Your task to perform on an android device: Open wifi settings Image 0: 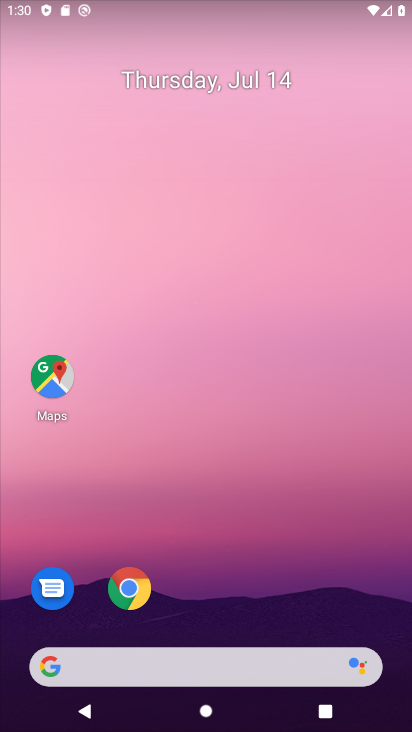
Step 0: drag from (278, 720) to (278, 216)
Your task to perform on an android device: Open wifi settings Image 1: 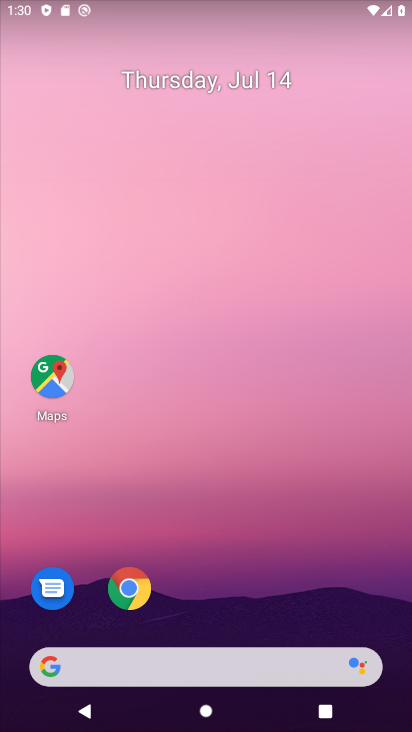
Step 1: drag from (265, 705) to (291, 138)
Your task to perform on an android device: Open wifi settings Image 2: 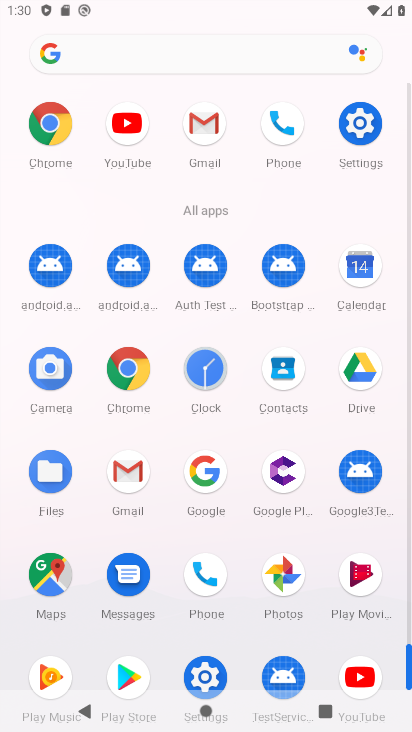
Step 2: click (369, 121)
Your task to perform on an android device: Open wifi settings Image 3: 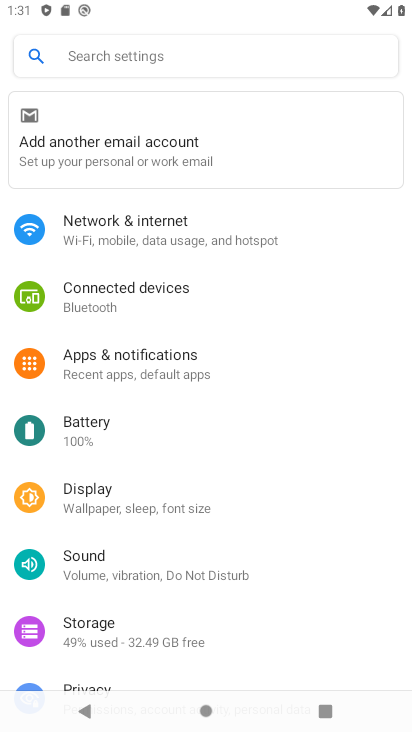
Step 3: click (210, 246)
Your task to perform on an android device: Open wifi settings Image 4: 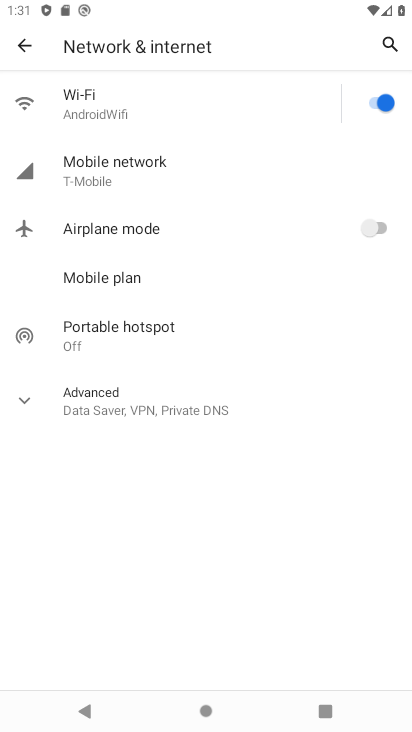
Step 4: click (190, 120)
Your task to perform on an android device: Open wifi settings Image 5: 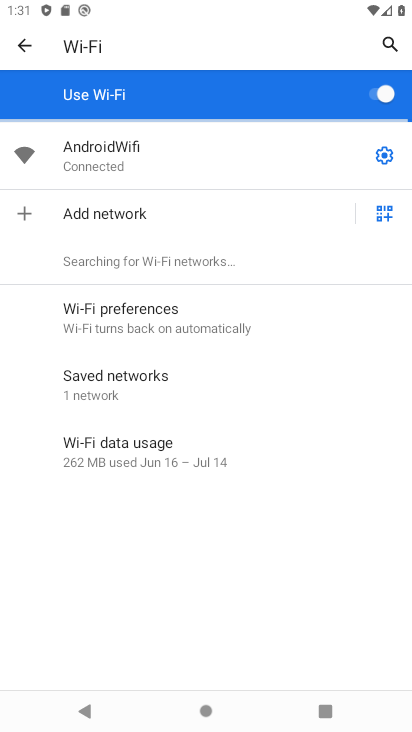
Step 5: click (384, 150)
Your task to perform on an android device: Open wifi settings Image 6: 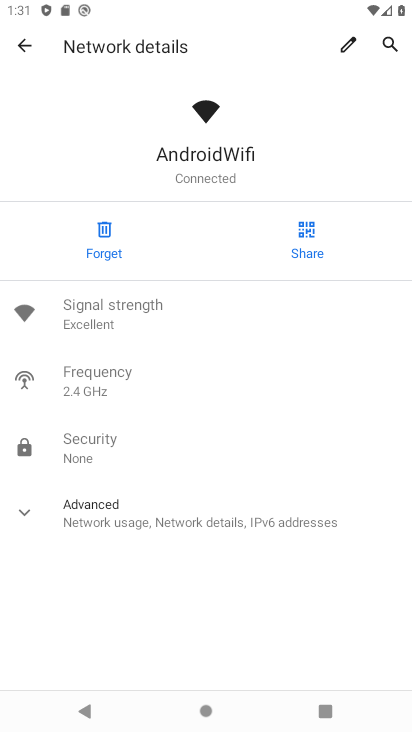
Step 6: task complete